Your task to perform on an android device: What is the news today? Image 0: 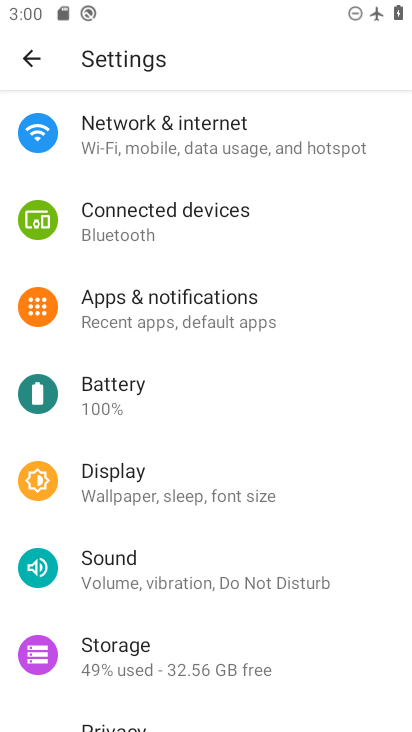
Step 0: press home button
Your task to perform on an android device: What is the news today? Image 1: 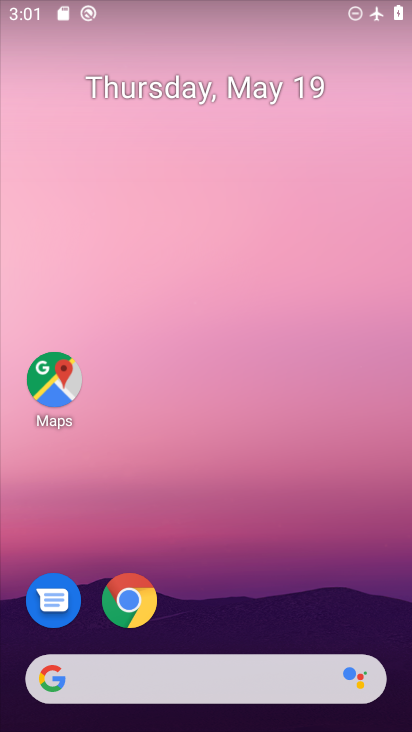
Step 1: drag from (396, 677) to (337, 237)
Your task to perform on an android device: What is the news today? Image 2: 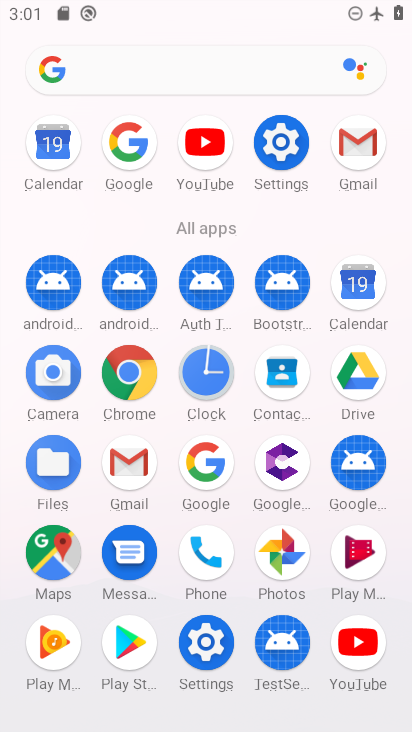
Step 2: click (206, 465)
Your task to perform on an android device: What is the news today? Image 3: 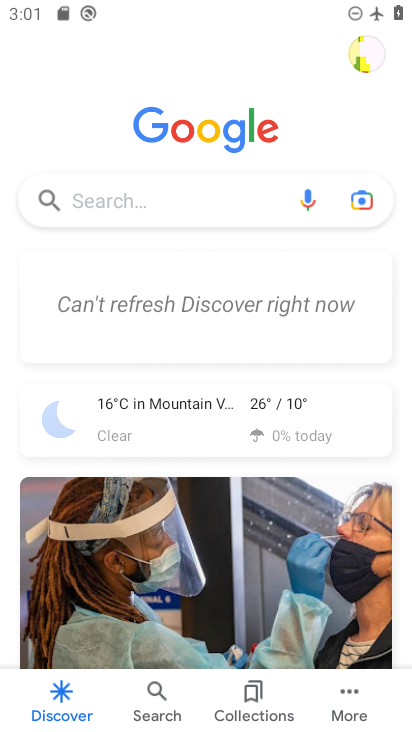
Step 3: task complete